Your task to perform on an android device: clear history in the chrome app Image 0: 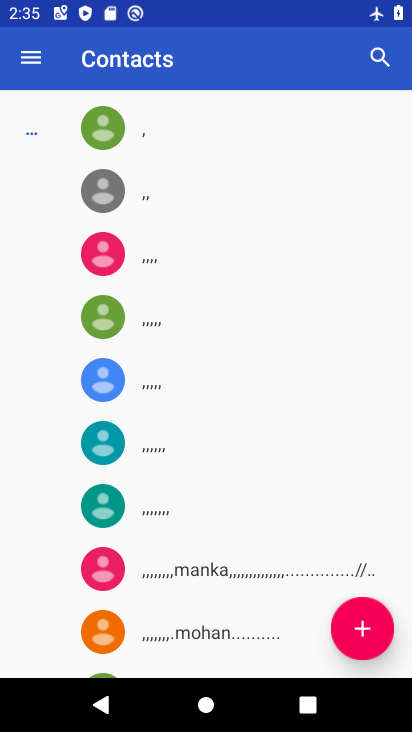
Step 0: drag from (295, 568) to (274, 312)
Your task to perform on an android device: clear history in the chrome app Image 1: 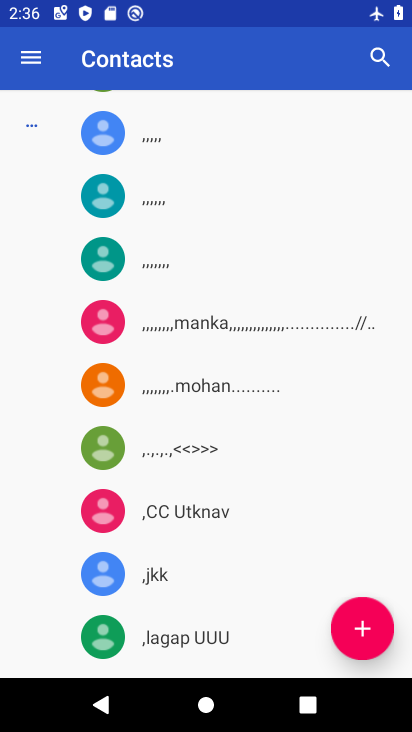
Step 1: press home button
Your task to perform on an android device: clear history in the chrome app Image 2: 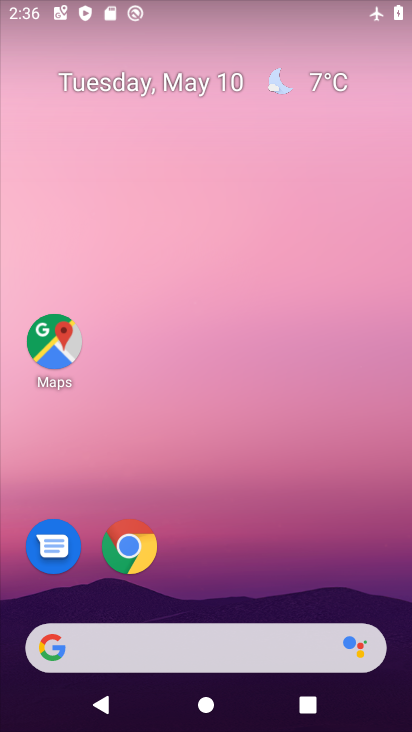
Step 2: click (125, 543)
Your task to perform on an android device: clear history in the chrome app Image 3: 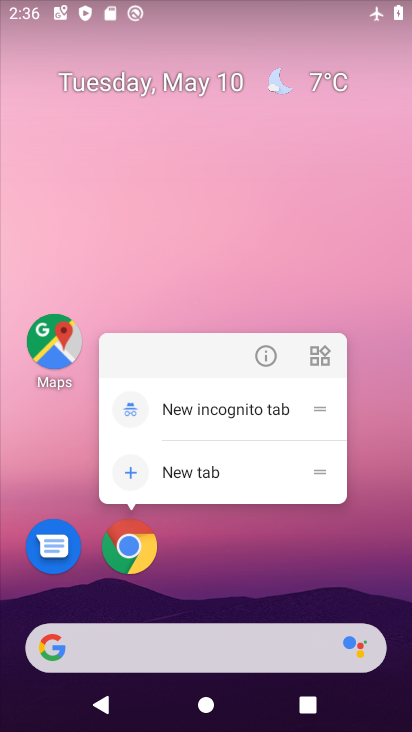
Step 3: drag from (275, 602) to (248, 0)
Your task to perform on an android device: clear history in the chrome app Image 4: 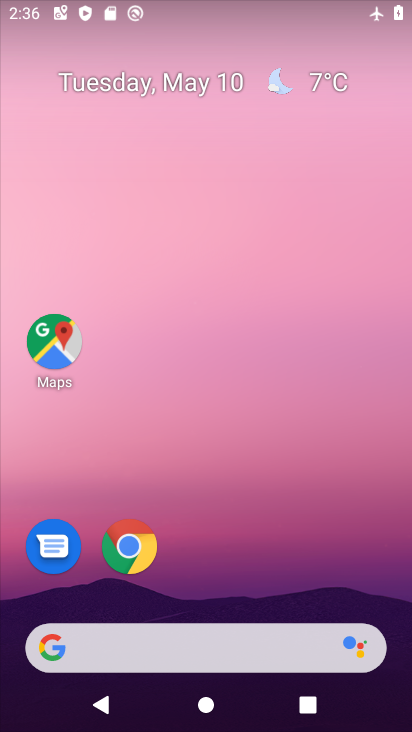
Step 4: drag from (276, 558) to (222, 60)
Your task to perform on an android device: clear history in the chrome app Image 5: 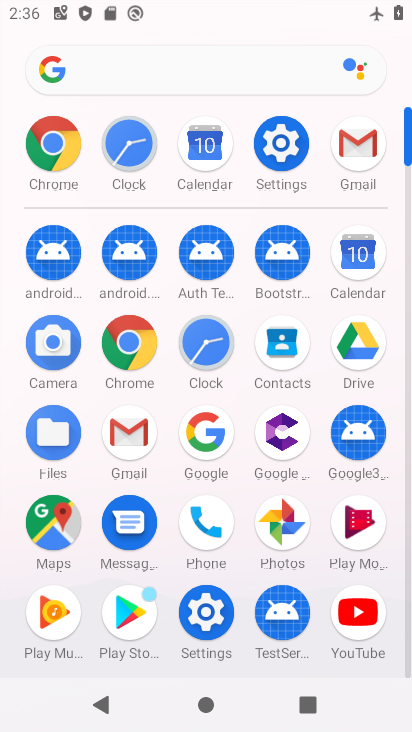
Step 5: click (57, 143)
Your task to perform on an android device: clear history in the chrome app Image 6: 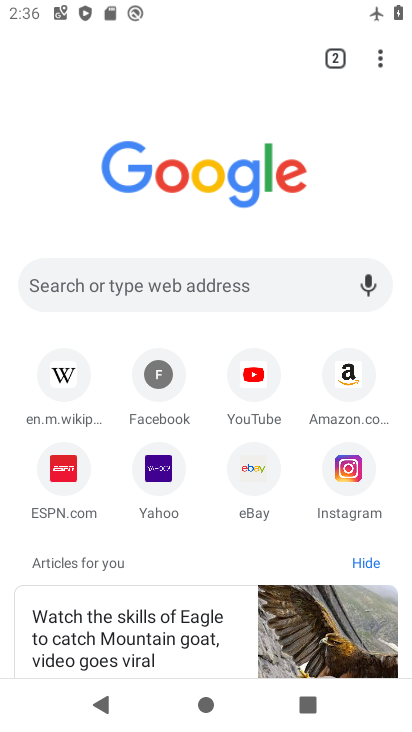
Step 6: drag from (377, 59) to (150, 332)
Your task to perform on an android device: clear history in the chrome app Image 7: 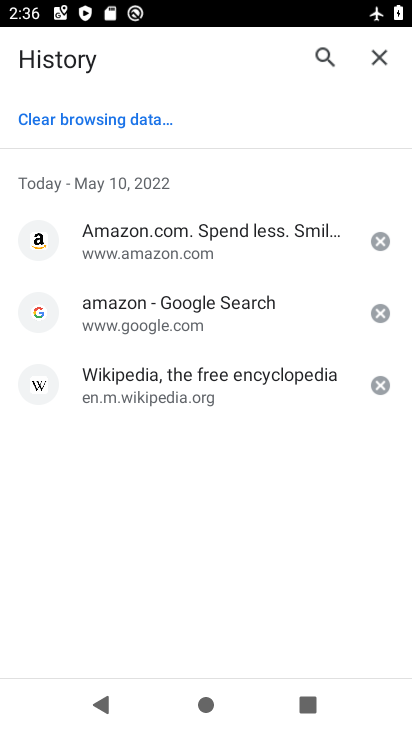
Step 7: click (34, 115)
Your task to perform on an android device: clear history in the chrome app Image 8: 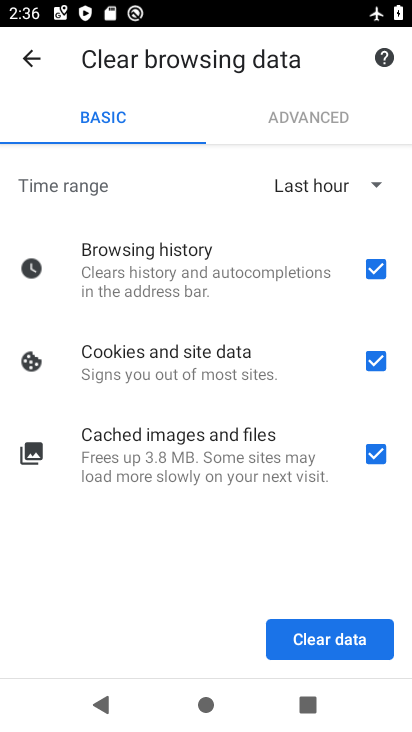
Step 8: click (326, 645)
Your task to perform on an android device: clear history in the chrome app Image 9: 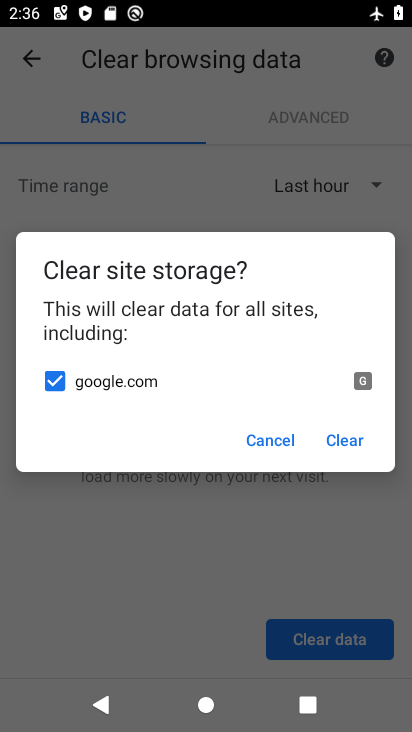
Step 9: click (342, 441)
Your task to perform on an android device: clear history in the chrome app Image 10: 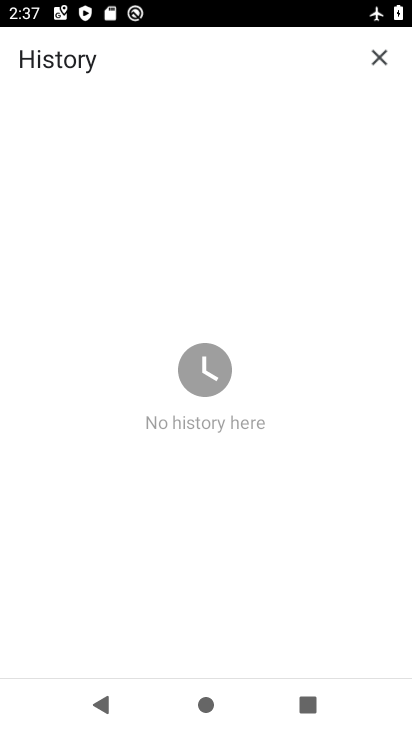
Step 10: press home button
Your task to perform on an android device: clear history in the chrome app Image 11: 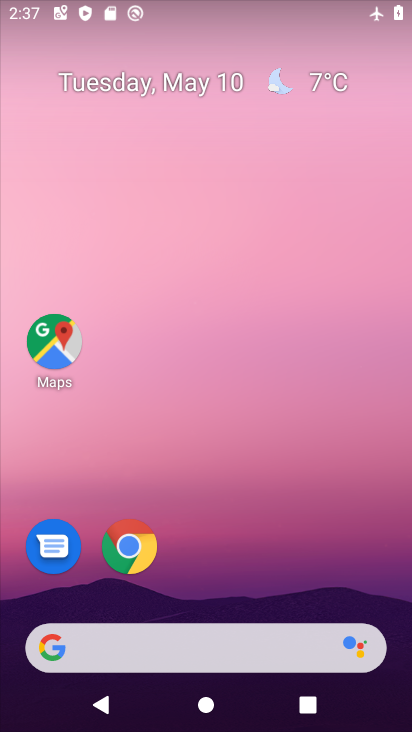
Step 11: drag from (335, 512) to (119, 6)
Your task to perform on an android device: clear history in the chrome app Image 12: 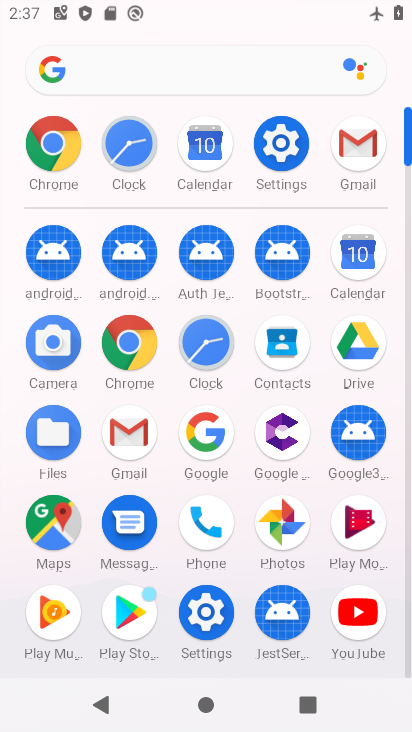
Step 12: click (58, 136)
Your task to perform on an android device: clear history in the chrome app Image 13: 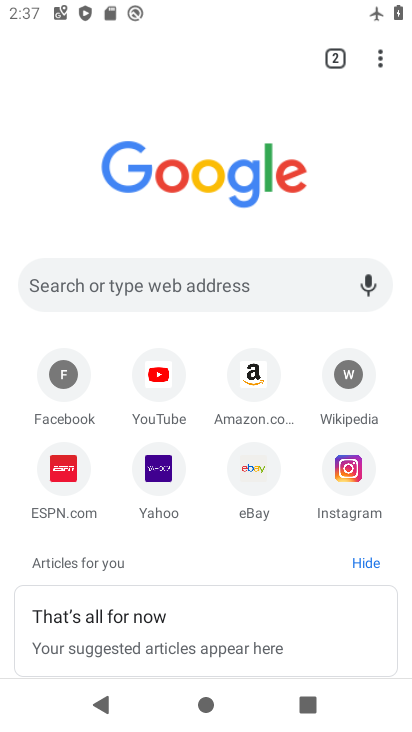
Step 13: task complete